Your task to perform on an android device: open the mobile data screen to see how much data has been used Image 0: 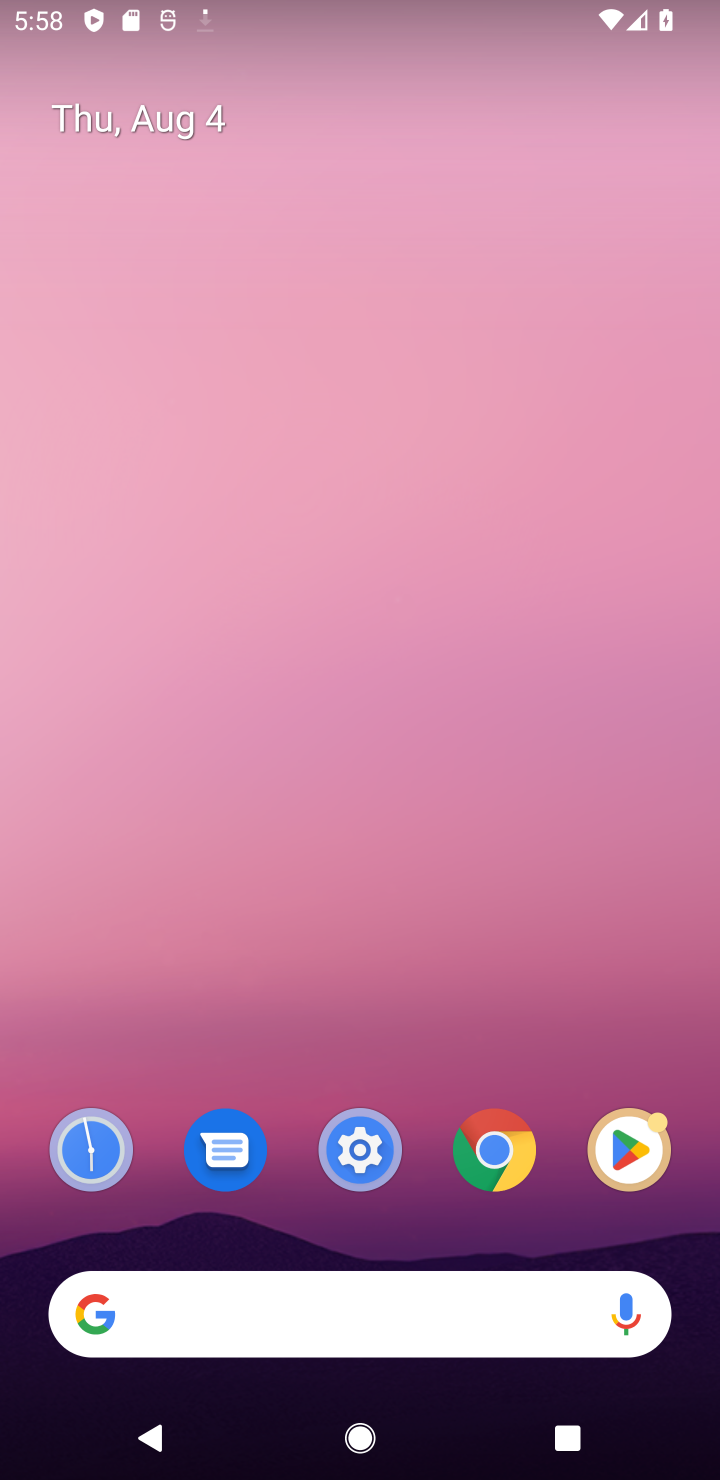
Step 0: drag from (494, 578) to (288, 39)
Your task to perform on an android device: open the mobile data screen to see how much data has been used Image 1: 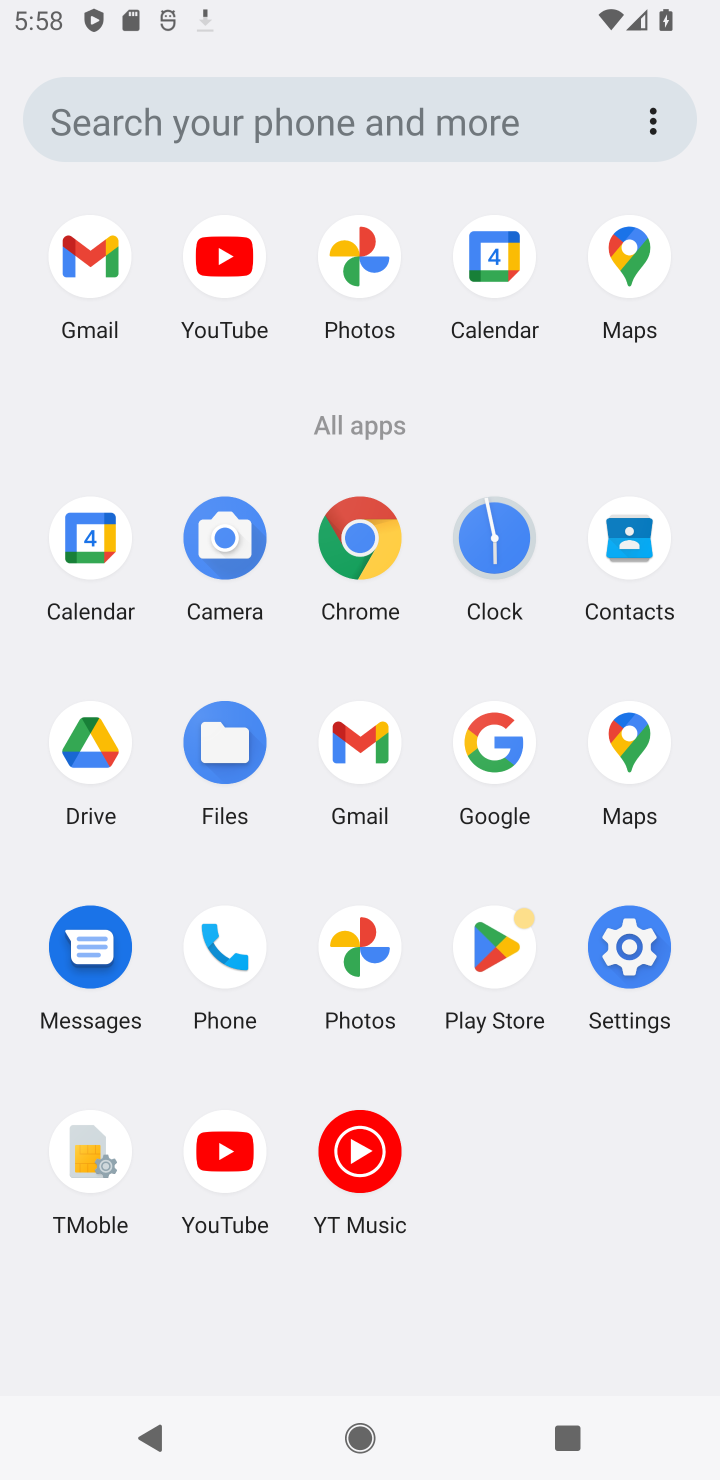
Step 1: click (639, 924)
Your task to perform on an android device: open the mobile data screen to see how much data has been used Image 2: 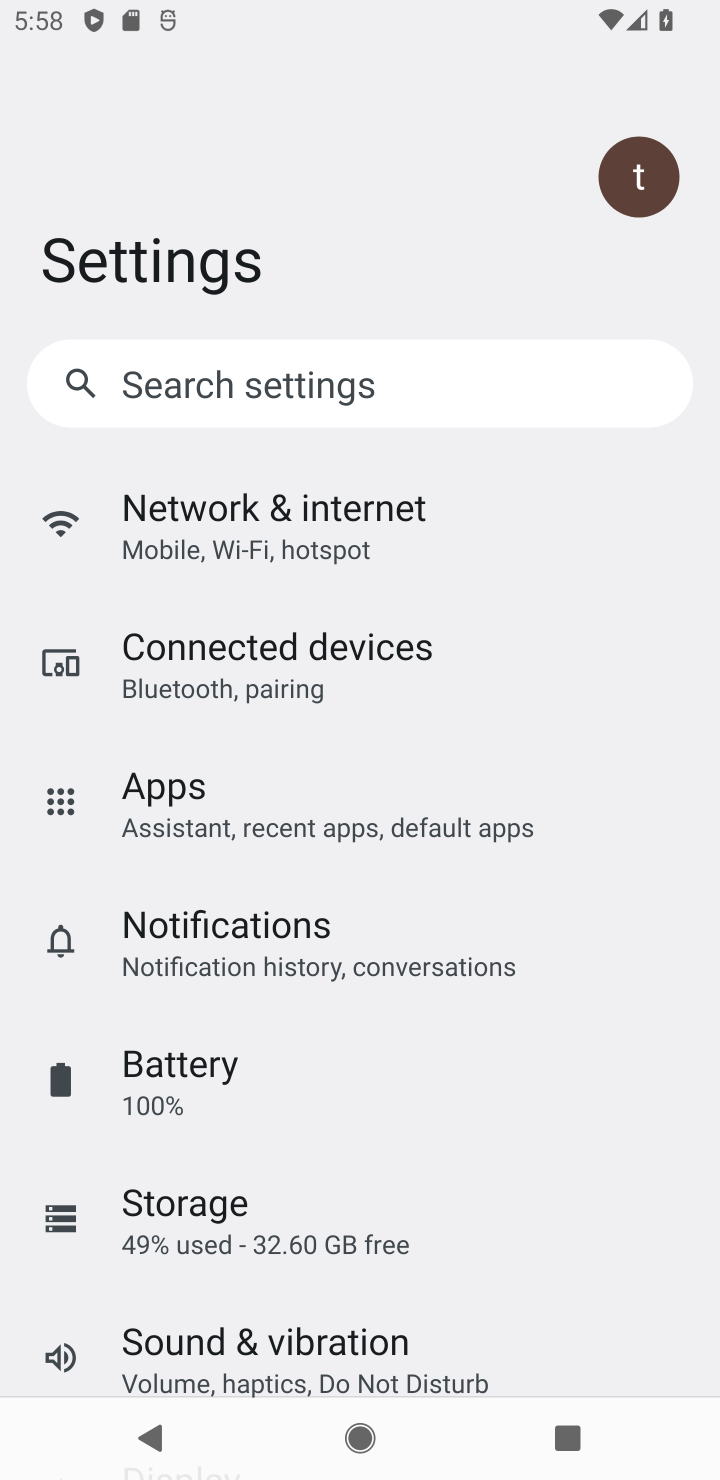
Step 2: click (374, 514)
Your task to perform on an android device: open the mobile data screen to see how much data has been used Image 3: 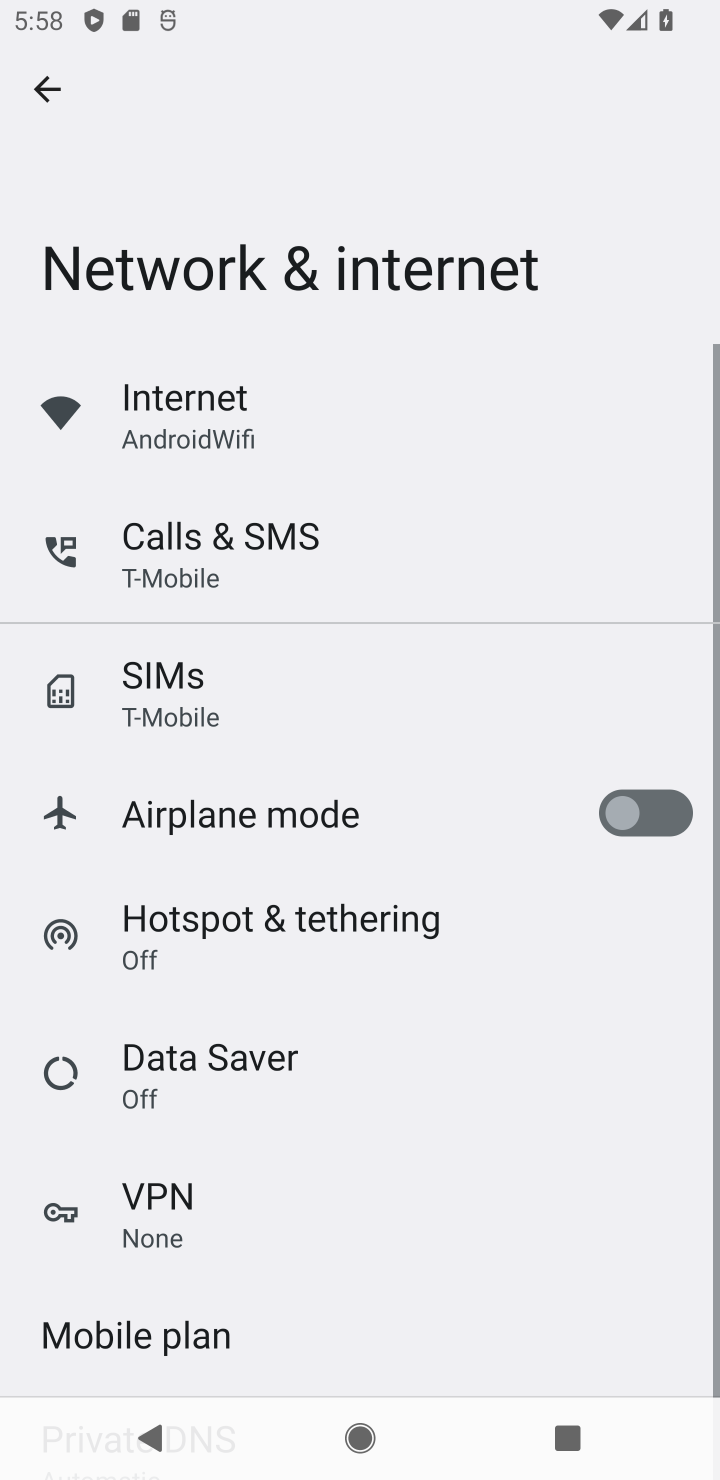
Step 3: task complete